Your task to perform on an android device: turn on sleep mode Image 0: 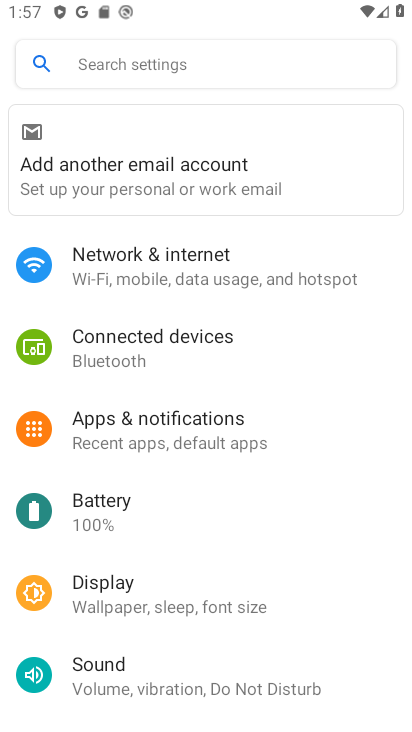
Step 0: click (213, 600)
Your task to perform on an android device: turn on sleep mode Image 1: 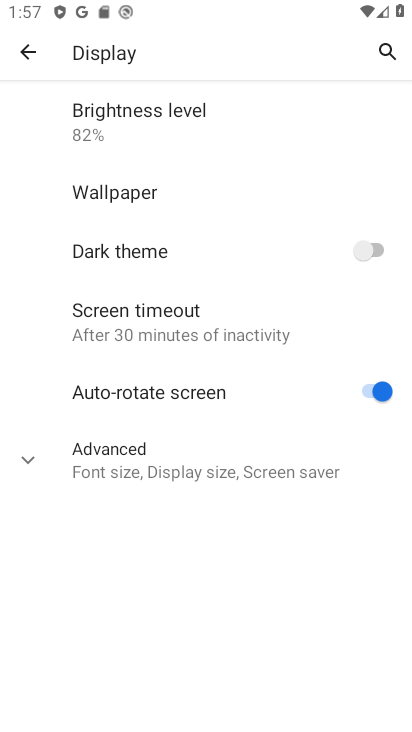
Step 1: click (223, 473)
Your task to perform on an android device: turn on sleep mode Image 2: 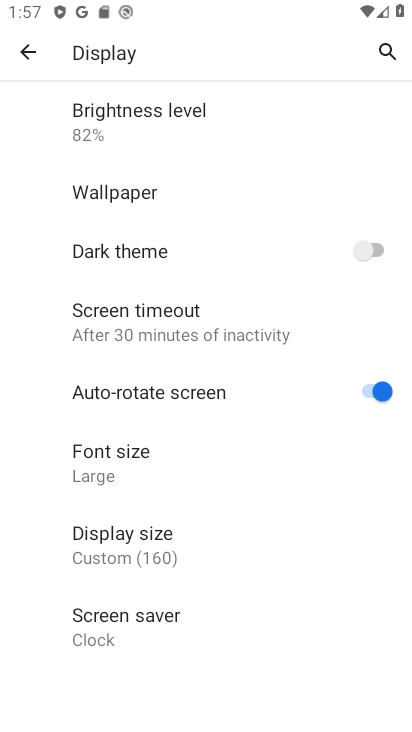
Step 2: task complete